Your task to perform on an android device: open a bookmark in the chrome app Image 0: 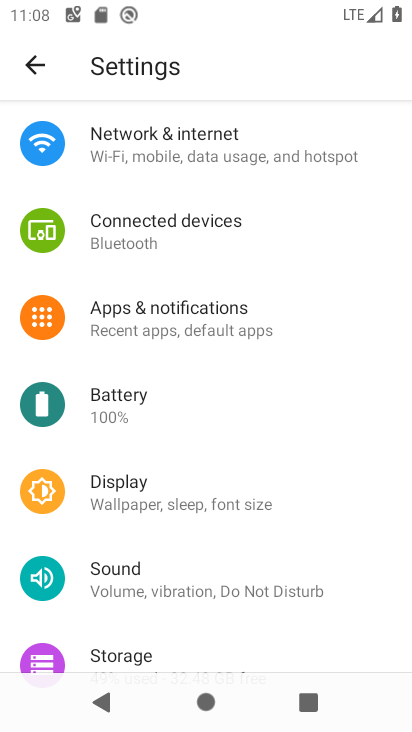
Step 0: press home button
Your task to perform on an android device: open a bookmark in the chrome app Image 1: 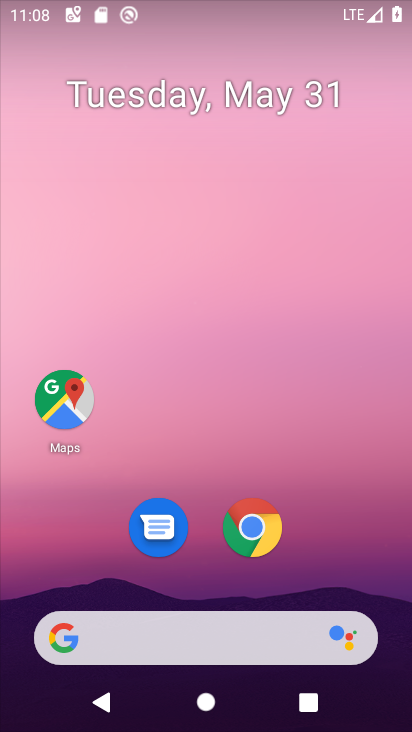
Step 1: click (253, 555)
Your task to perform on an android device: open a bookmark in the chrome app Image 2: 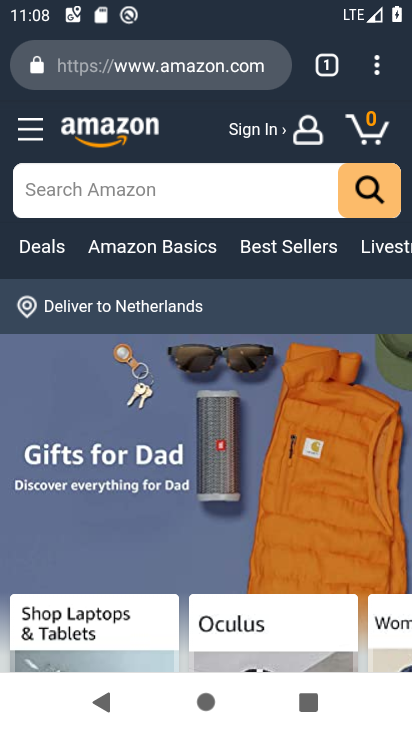
Step 2: click (378, 67)
Your task to perform on an android device: open a bookmark in the chrome app Image 3: 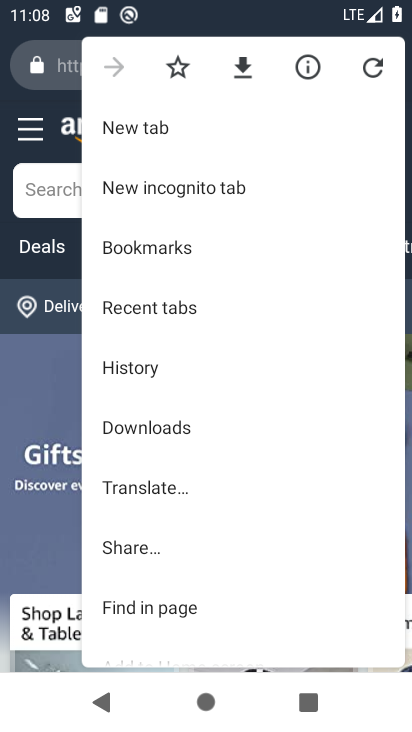
Step 3: click (147, 247)
Your task to perform on an android device: open a bookmark in the chrome app Image 4: 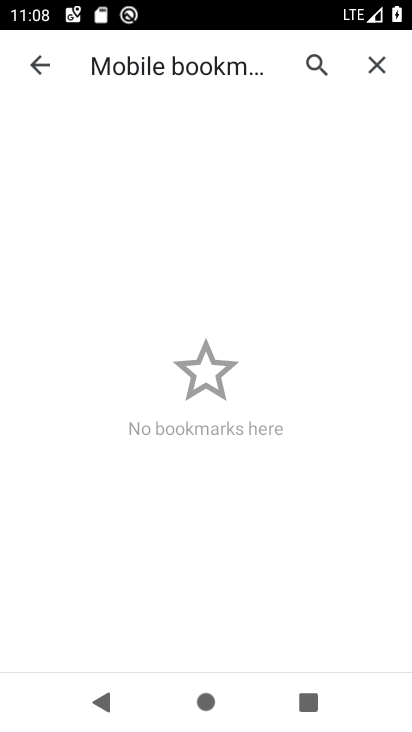
Step 4: task complete